Your task to perform on an android device: Is it going to rain tomorrow? Image 0: 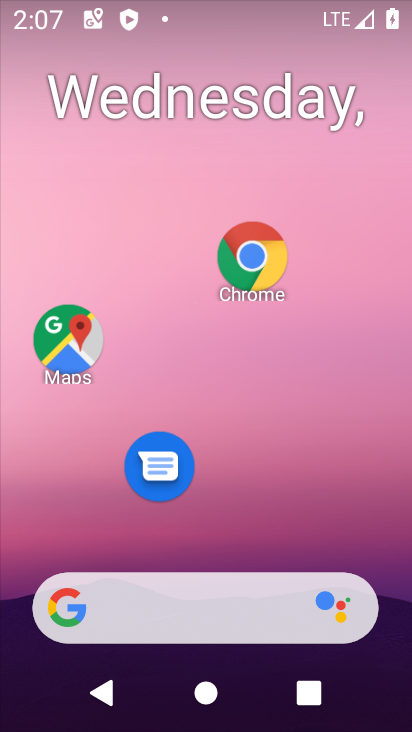
Step 0: drag from (302, 488) to (30, 271)
Your task to perform on an android device: Is it going to rain tomorrow? Image 1: 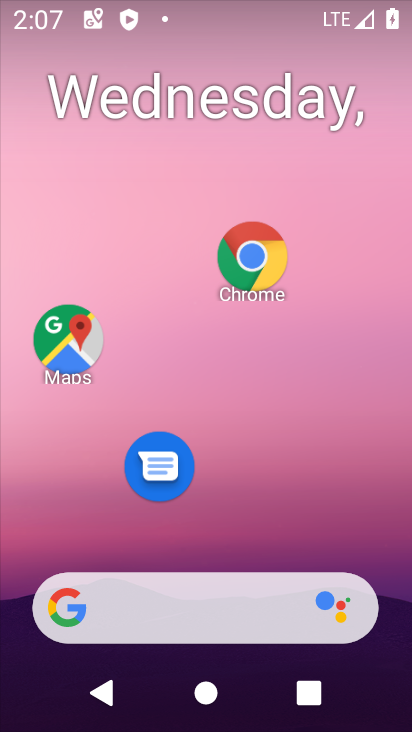
Step 1: click (355, 219)
Your task to perform on an android device: Is it going to rain tomorrow? Image 2: 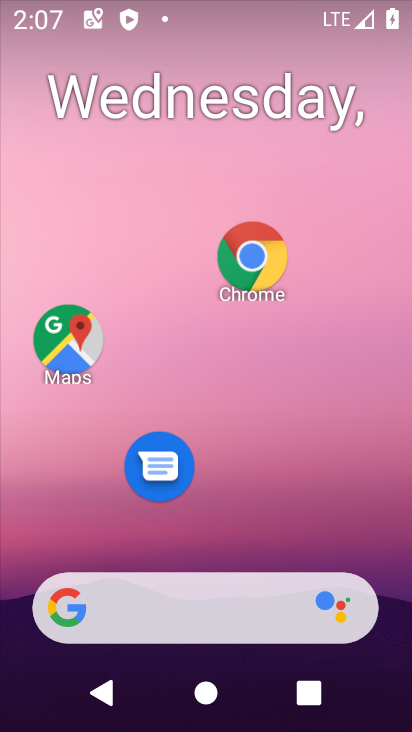
Step 2: click (246, 255)
Your task to perform on an android device: Is it going to rain tomorrow? Image 3: 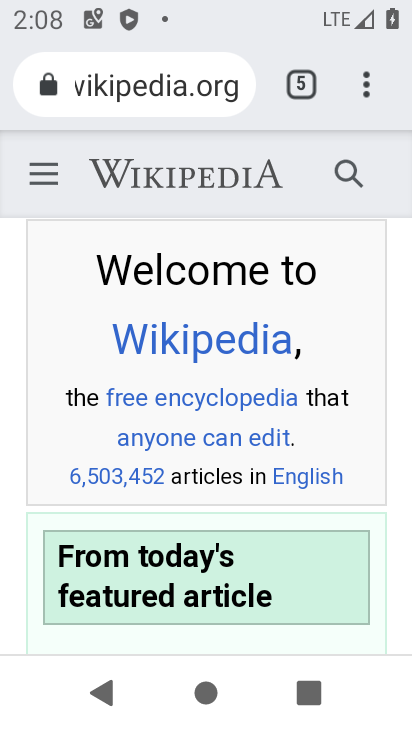
Step 3: click (171, 94)
Your task to perform on an android device: Is it going to rain tomorrow? Image 4: 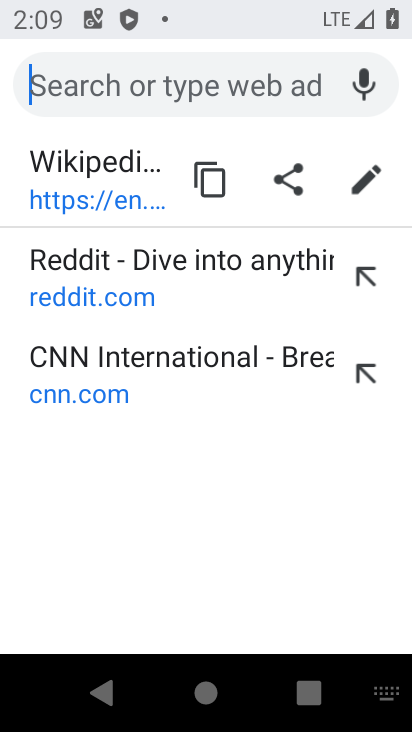
Step 4: type "Is it going to rain tomorrow?"
Your task to perform on an android device: Is it going to rain tomorrow? Image 5: 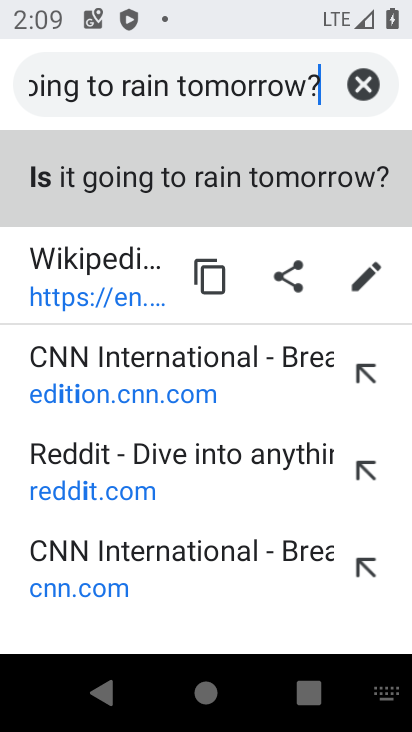
Step 5: type ""
Your task to perform on an android device: Is it going to rain tomorrow? Image 6: 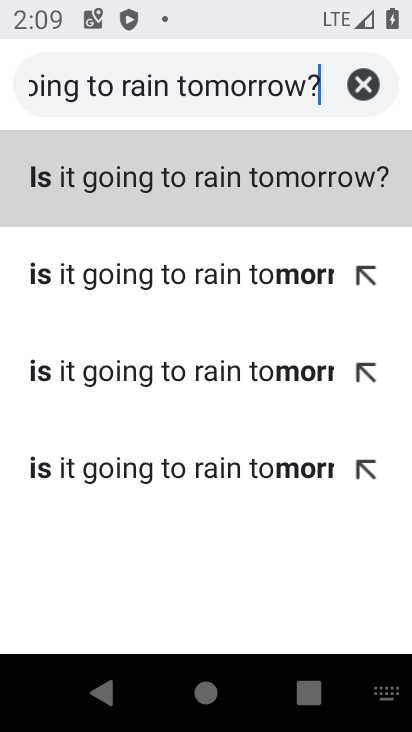
Step 6: click (162, 185)
Your task to perform on an android device: Is it going to rain tomorrow? Image 7: 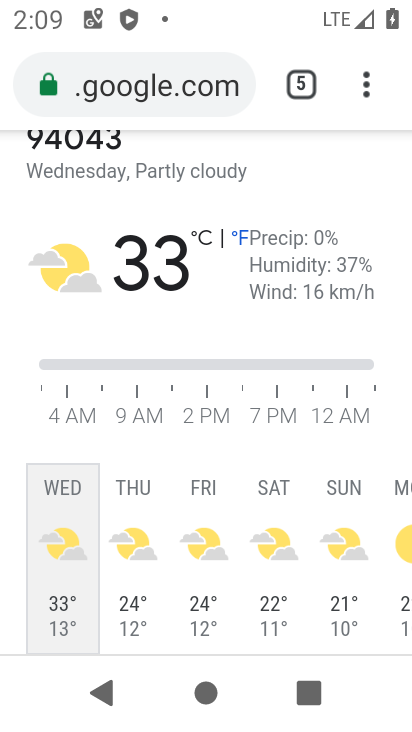
Step 7: task complete